Your task to perform on an android device: When is my next appointment? Image 0: 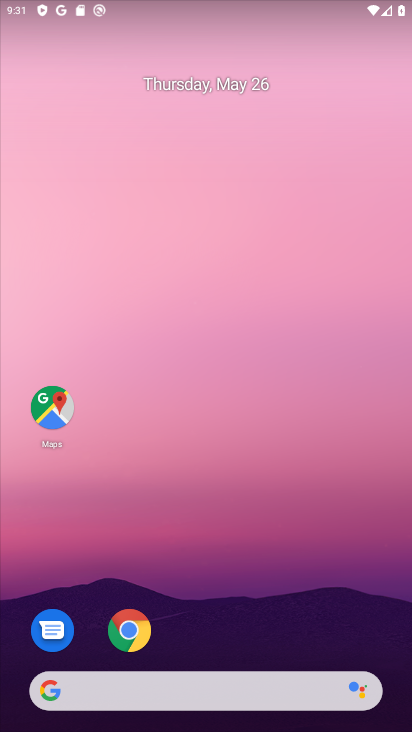
Step 0: drag from (228, 639) to (163, 133)
Your task to perform on an android device: When is my next appointment? Image 1: 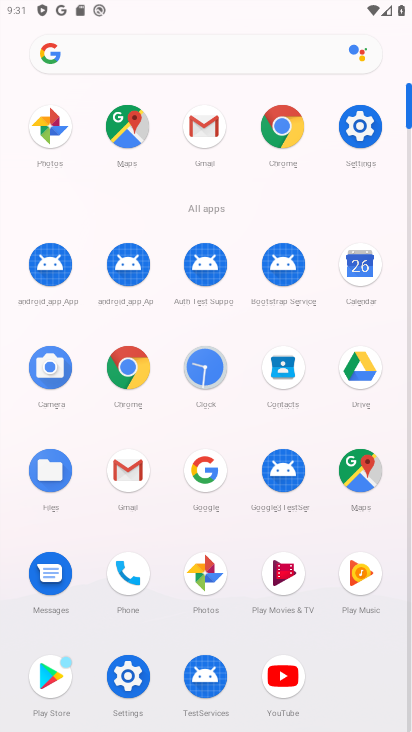
Step 1: click (366, 272)
Your task to perform on an android device: When is my next appointment? Image 2: 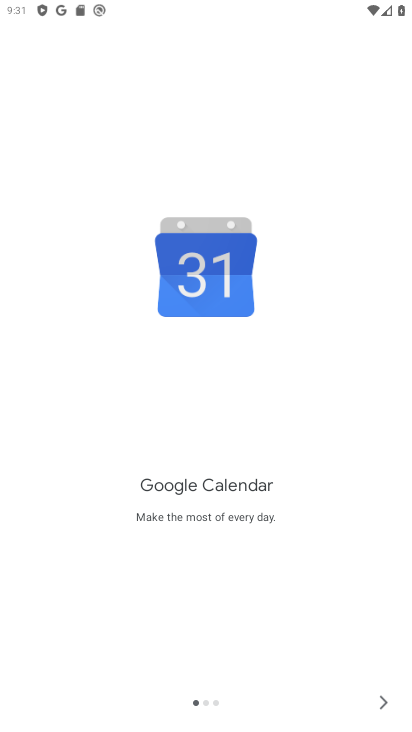
Step 2: click (374, 692)
Your task to perform on an android device: When is my next appointment? Image 3: 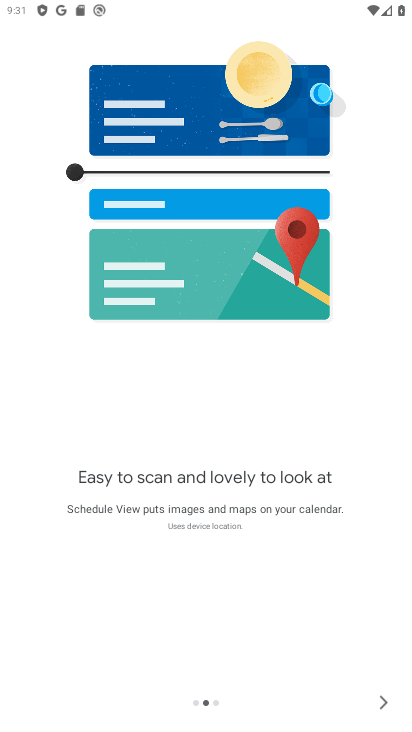
Step 3: click (374, 692)
Your task to perform on an android device: When is my next appointment? Image 4: 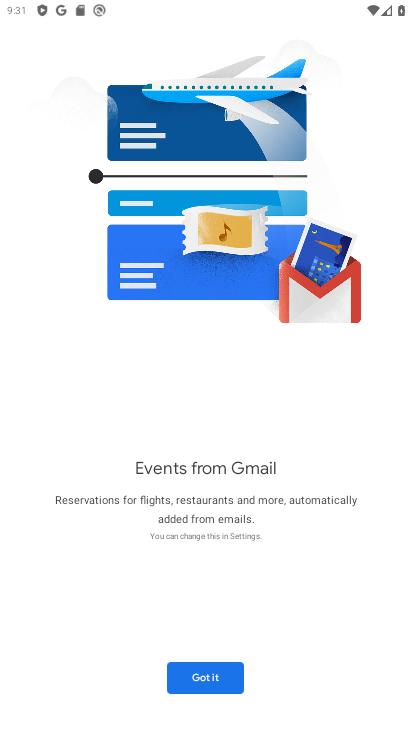
Step 4: click (221, 684)
Your task to perform on an android device: When is my next appointment? Image 5: 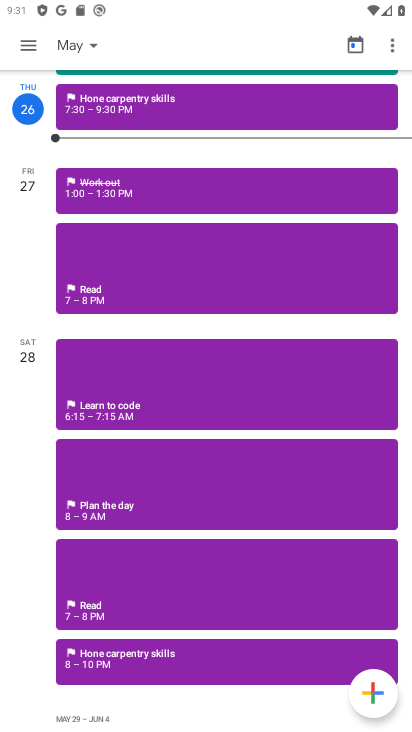
Step 5: click (221, 684)
Your task to perform on an android device: When is my next appointment? Image 6: 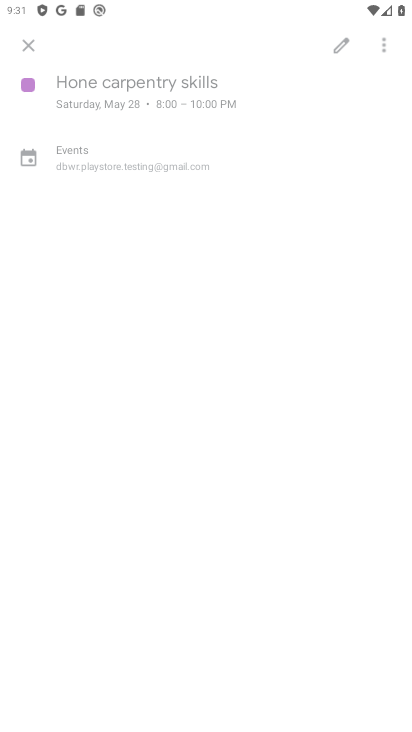
Step 6: task complete